Your task to perform on an android device: Go to Reddit.com Image 0: 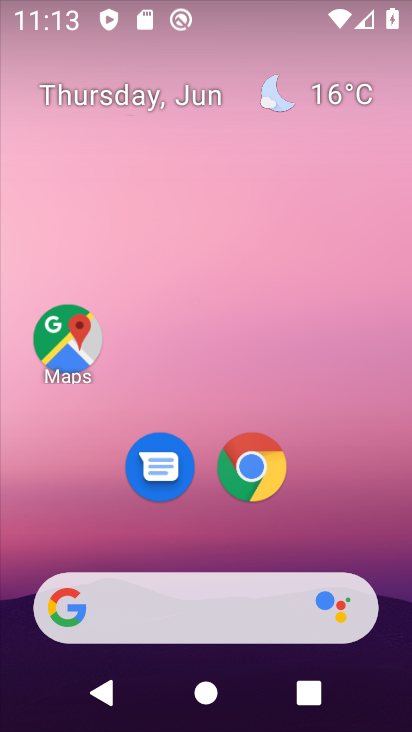
Step 0: click (256, 473)
Your task to perform on an android device: Go to Reddit.com Image 1: 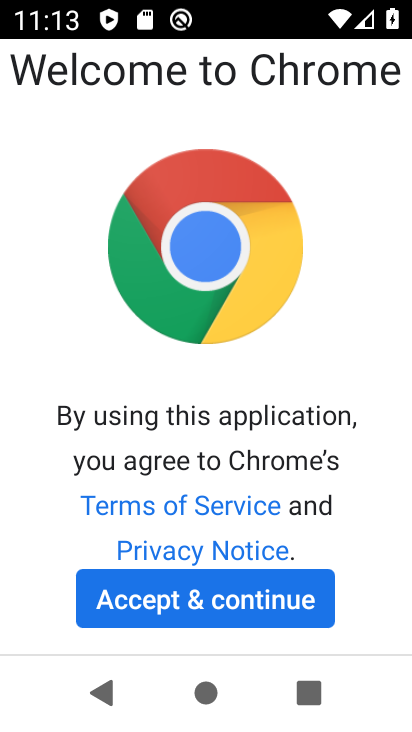
Step 1: click (194, 605)
Your task to perform on an android device: Go to Reddit.com Image 2: 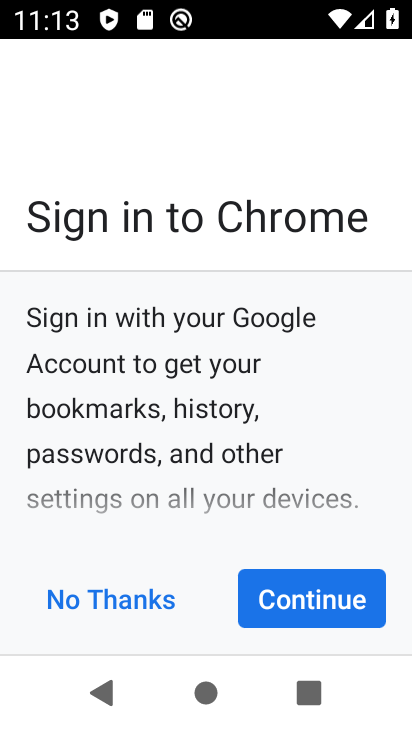
Step 2: click (336, 603)
Your task to perform on an android device: Go to Reddit.com Image 3: 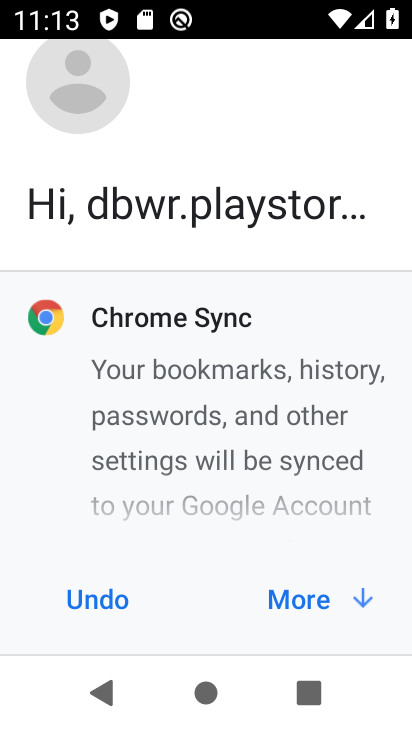
Step 3: click (336, 603)
Your task to perform on an android device: Go to Reddit.com Image 4: 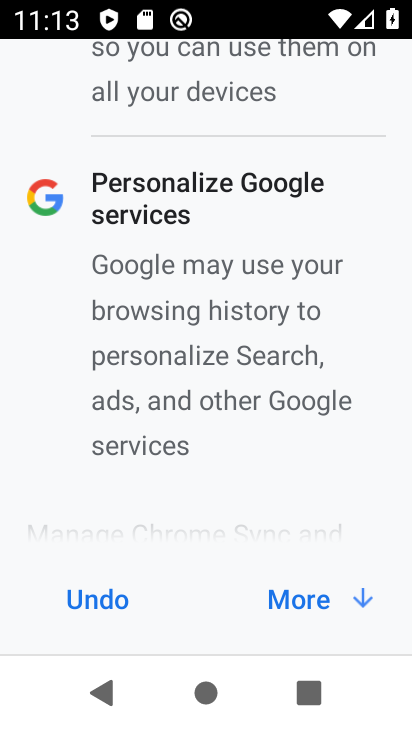
Step 4: click (308, 601)
Your task to perform on an android device: Go to Reddit.com Image 5: 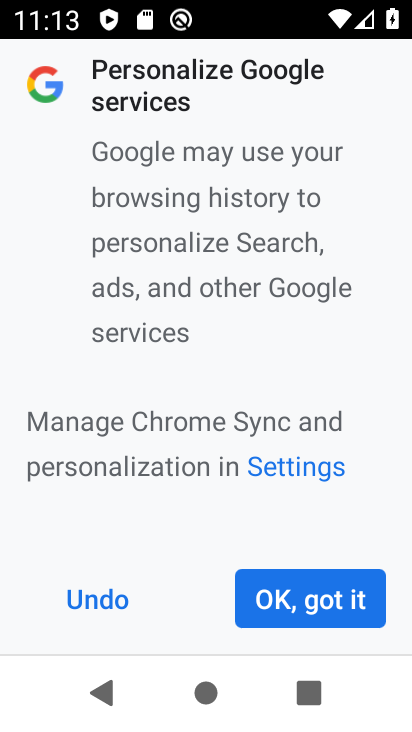
Step 5: click (308, 601)
Your task to perform on an android device: Go to Reddit.com Image 6: 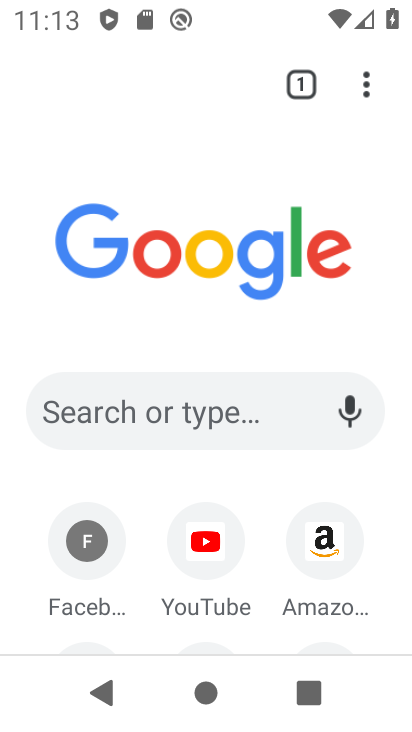
Step 6: click (162, 410)
Your task to perform on an android device: Go to Reddit.com Image 7: 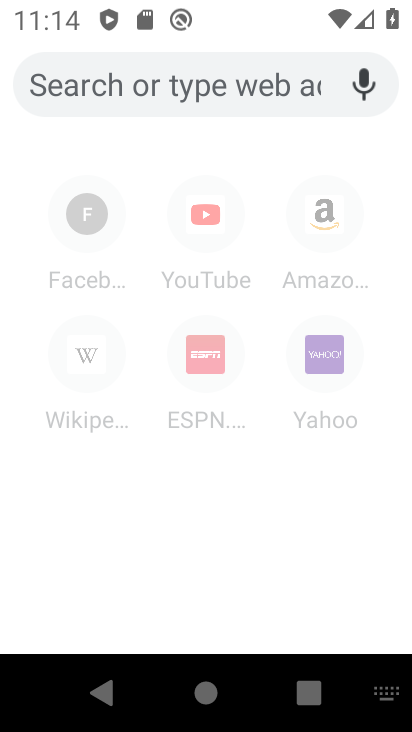
Step 7: type "reddit.com"
Your task to perform on an android device: Go to Reddit.com Image 8: 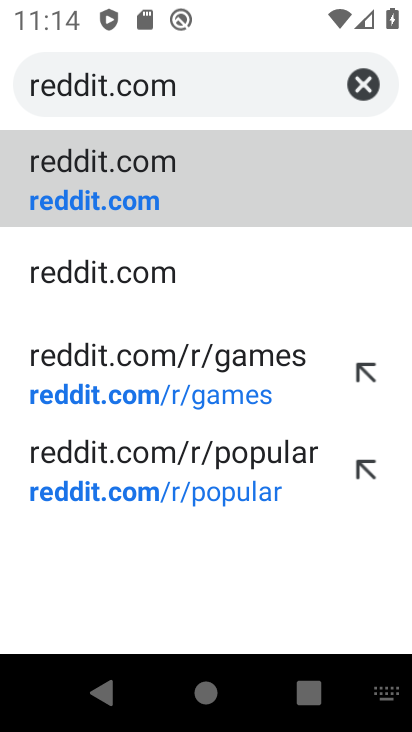
Step 8: click (134, 169)
Your task to perform on an android device: Go to Reddit.com Image 9: 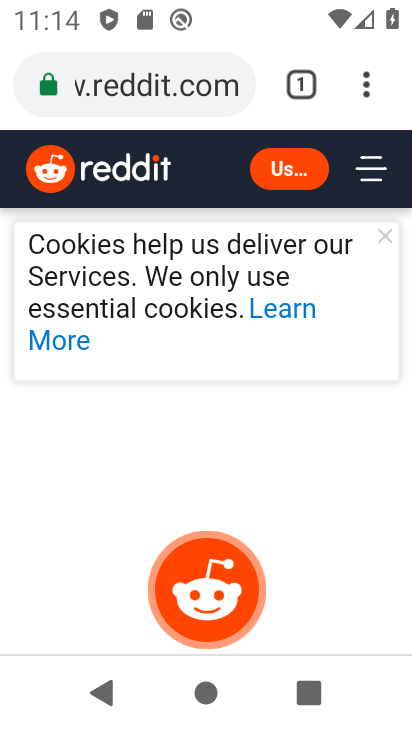
Step 9: task complete